Your task to perform on an android device: change notification settings in the gmail app Image 0: 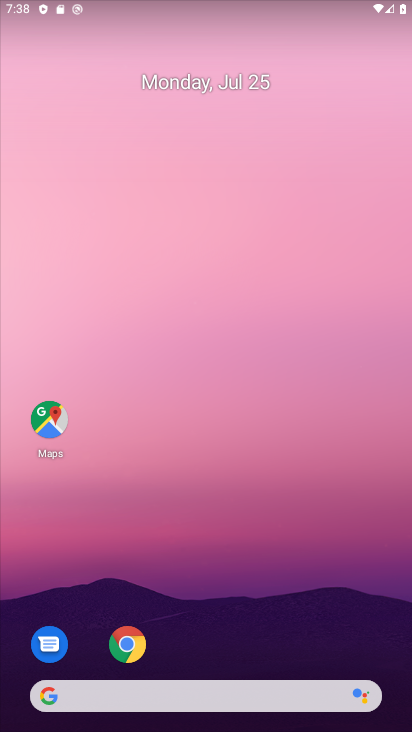
Step 0: drag from (203, 630) to (211, 171)
Your task to perform on an android device: change notification settings in the gmail app Image 1: 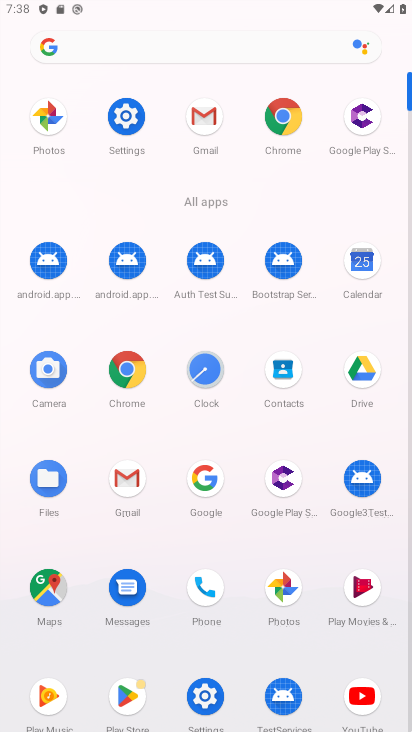
Step 1: click (200, 115)
Your task to perform on an android device: change notification settings in the gmail app Image 2: 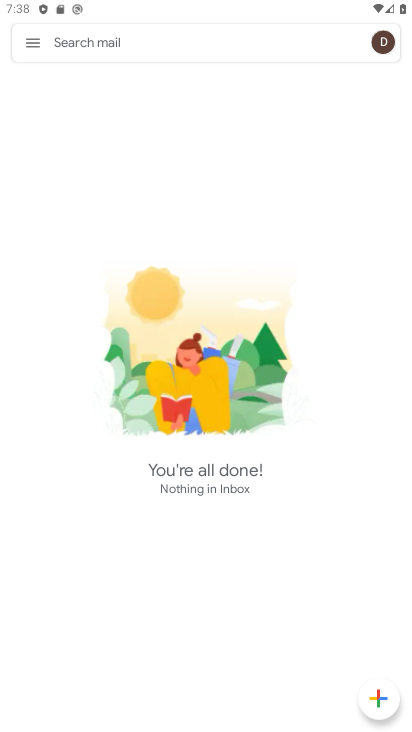
Step 2: click (35, 38)
Your task to perform on an android device: change notification settings in the gmail app Image 3: 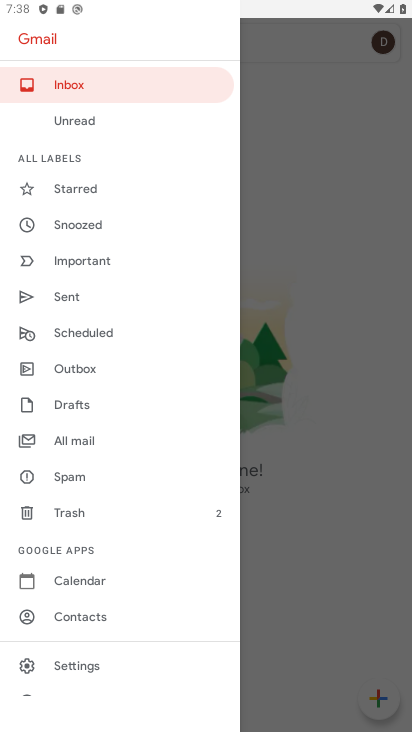
Step 3: click (77, 668)
Your task to perform on an android device: change notification settings in the gmail app Image 4: 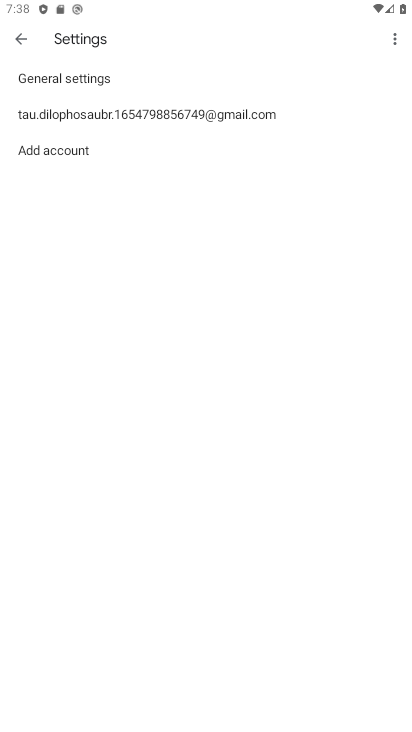
Step 4: click (79, 110)
Your task to perform on an android device: change notification settings in the gmail app Image 5: 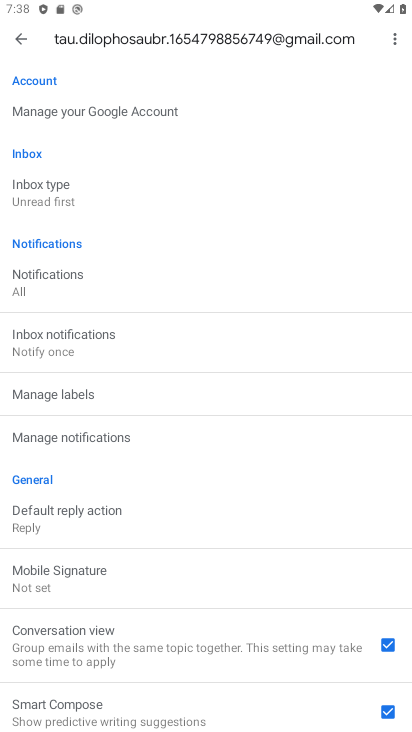
Step 5: click (78, 286)
Your task to perform on an android device: change notification settings in the gmail app Image 6: 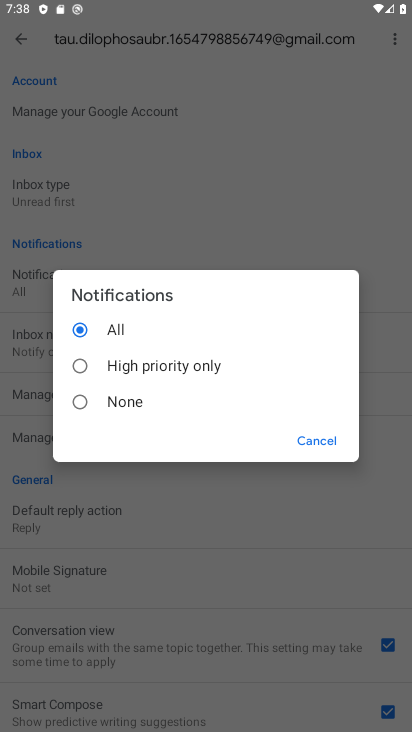
Step 6: click (119, 400)
Your task to perform on an android device: change notification settings in the gmail app Image 7: 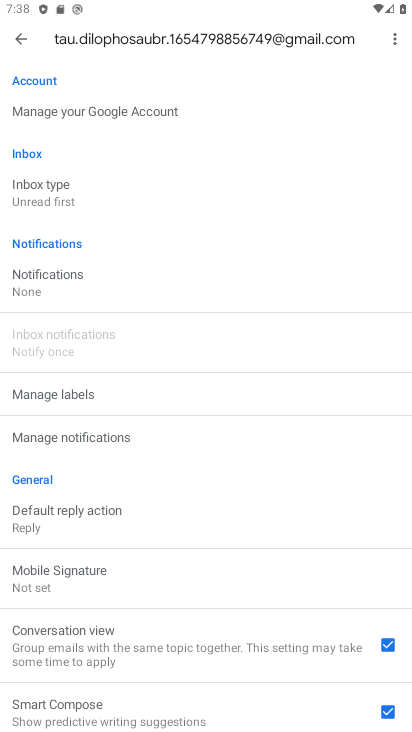
Step 7: task complete